Your task to perform on an android device: Open battery settings Image 0: 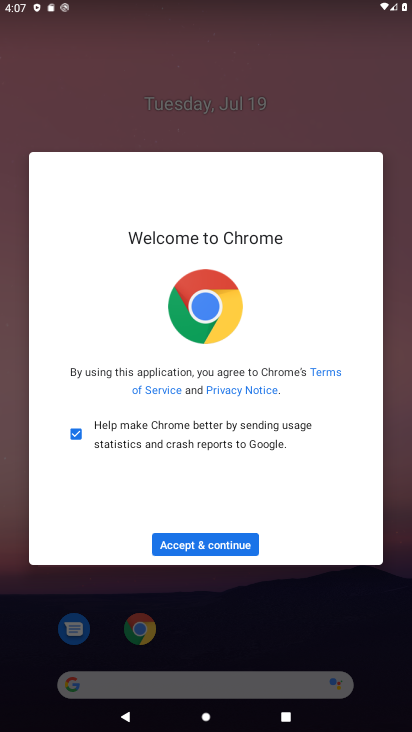
Step 0: press home button
Your task to perform on an android device: Open battery settings Image 1: 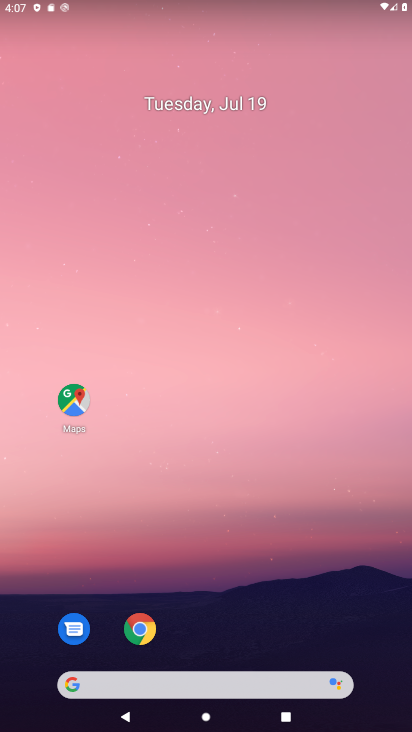
Step 1: drag from (180, 469) to (180, 133)
Your task to perform on an android device: Open battery settings Image 2: 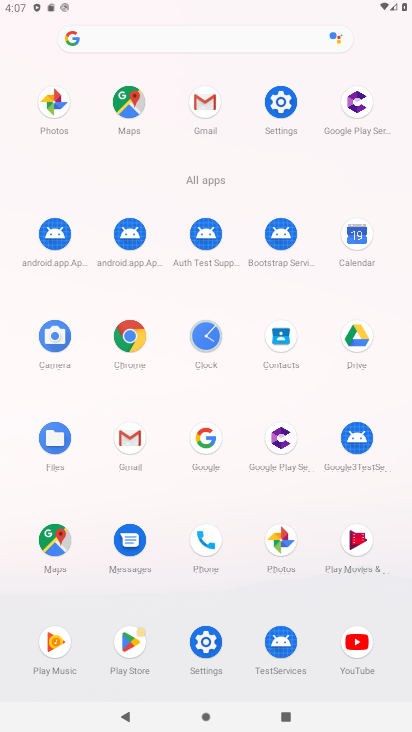
Step 2: click (279, 98)
Your task to perform on an android device: Open battery settings Image 3: 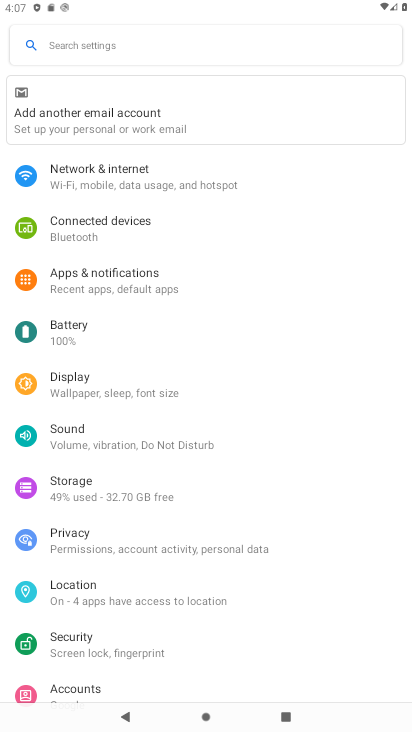
Step 3: click (73, 325)
Your task to perform on an android device: Open battery settings Image 4: 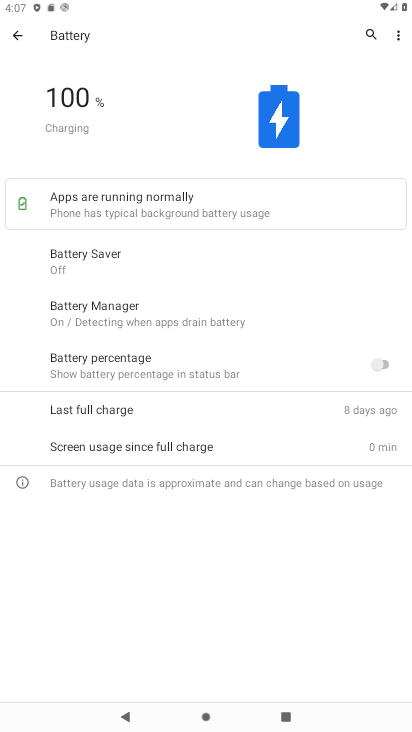
Step 4: task complete